Your task to perform on an android device: Open calendar and show me the first week of next month Image 0: 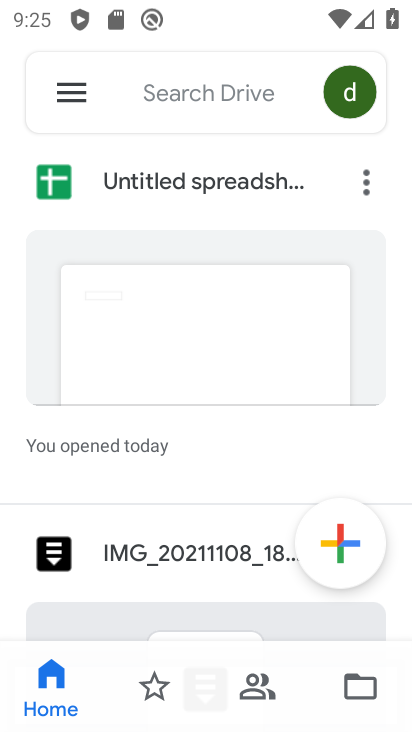
Step 0: press home button
Your task to perform on an android device: Open calendar and show me the first week of next month Image 1: 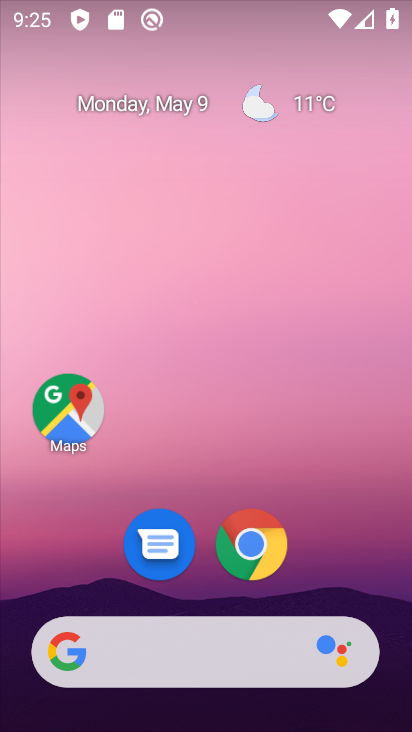
Step 1: drag from (383, 560) to (325, 276)
Your task to perform on an android device: Open calendar and show me the first week of next month Image 2: 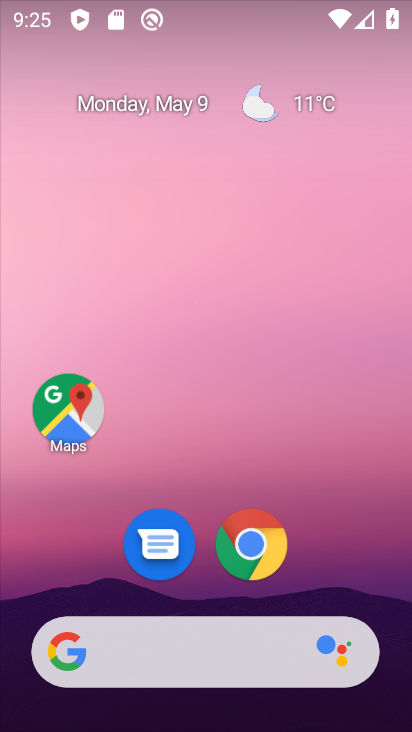
Step 2: drag from (411, 497) to (410, 232)
Your task to perform on an android device: Open calendar and show me the first week of next month Image 3: 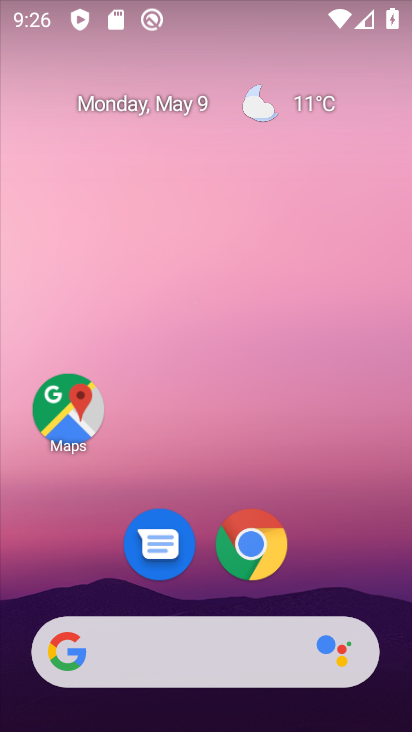
Step 3: drag from (377, 280) to (370, 216)
Your task to perform on an android device: Open calendar and show me the first week of next month Image 4: 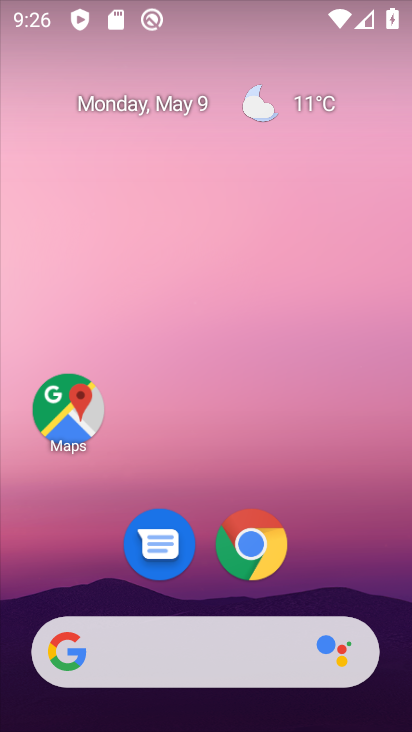
Step 4: drag from (397, 665) to (409, 281)
Your task to perform on an android device: Open calendar and show me the first week of next month Image 5: 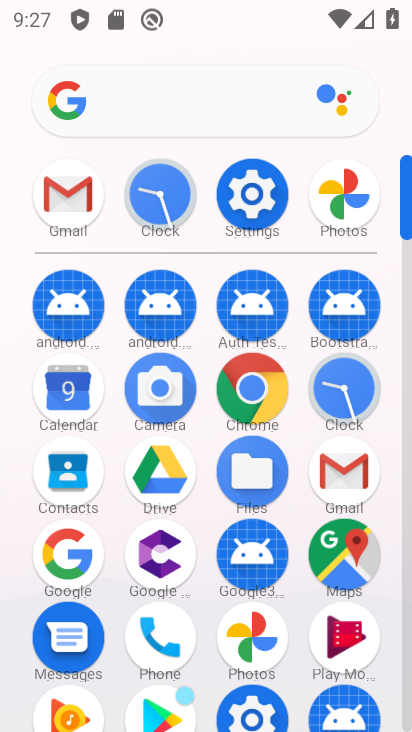
Step 5: click (59, 390)
Your task to perform on an android device: Open calendar and show me the first week of next month Image 6: 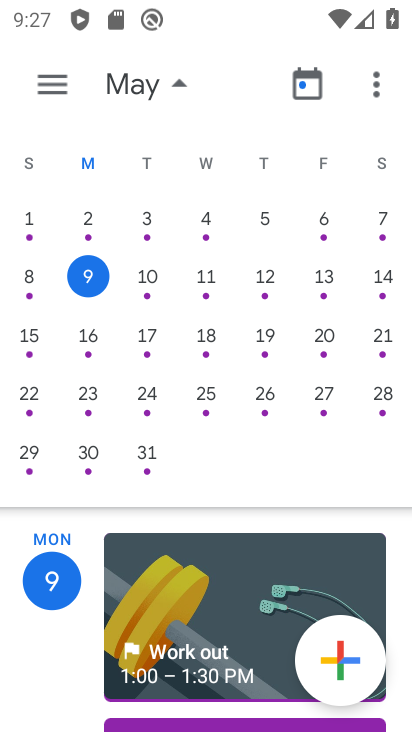
Step 6: click (171, 83)
Your task to perform on an android device: Open calendar and show me the first week of next month Image 7: 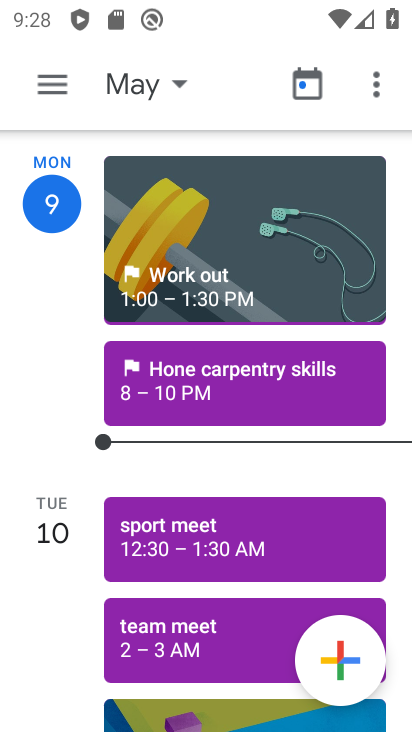
Step 7: click (180, 86)
Your task to perform on an android device: Open calendar and show me the first week of next month Image 8: 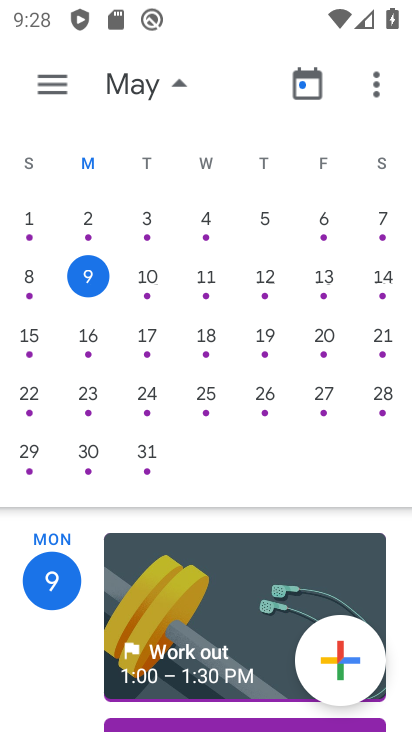
Step 8: drag from (396, 314) to (1, 322)
Your task to perform on an android device: Open calendar and show me the first week of next month Image 9: 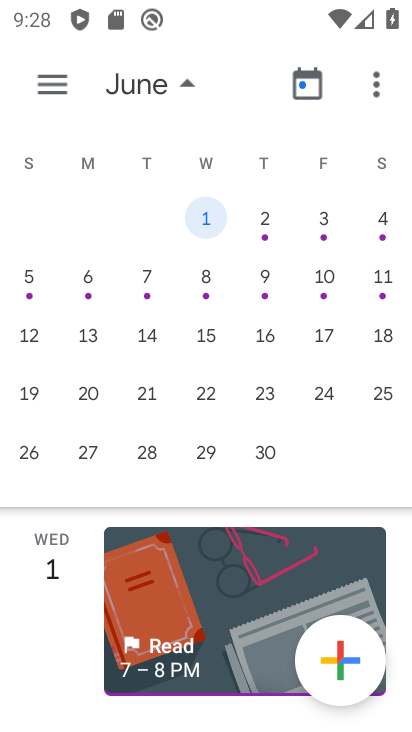
Step 9: click (303, 216)
Your task to perform on an android device: Open calendar and show me the first week of next month Image 10: 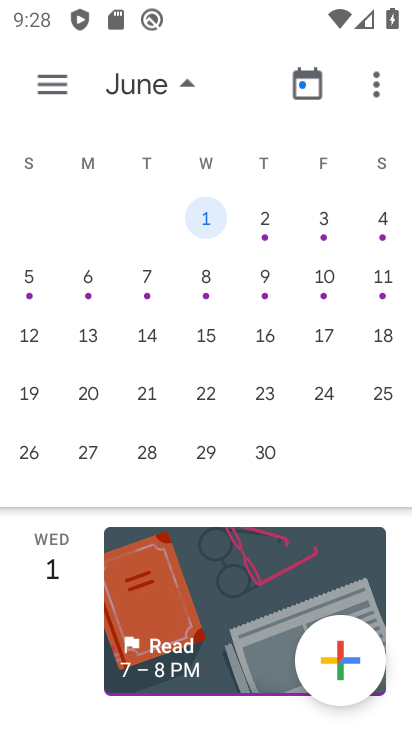
Step 10: click (318, 225)
Your task to perform on an android device: Open calendar and show me the first week of next month Image 11: 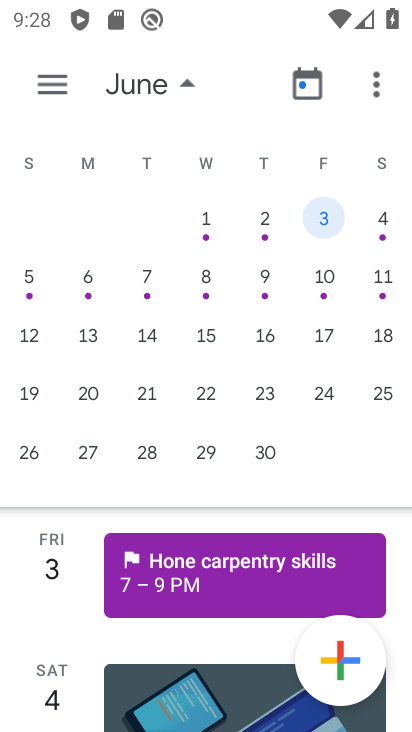
Step 11: task complete